Your task to perform on an android device: turn off smart reply in the gmail app Image 0: 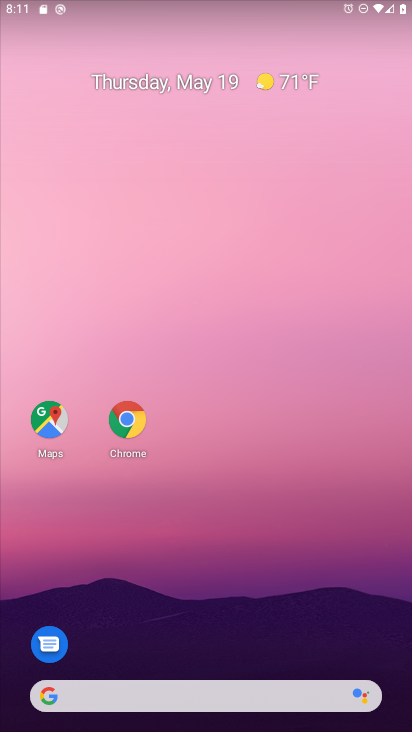
Step 0: drag from (192, 673) to (265, 131)
Your task to perform on an android device: turn off smart reply in the gmail app Image 1: 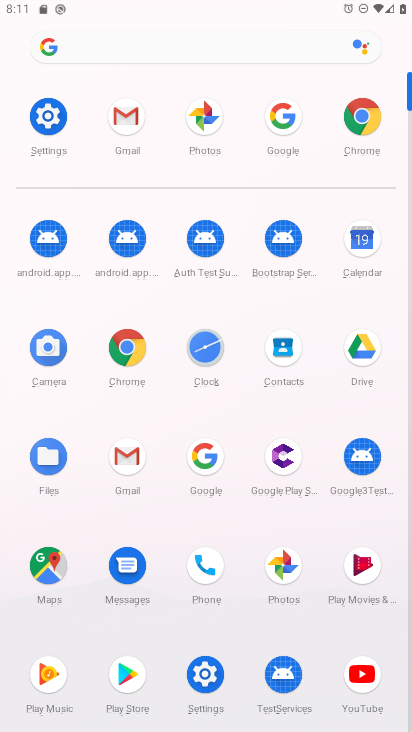
Step 1: click (130, 125)
Your task to perform on an android device: turn off smart reply in the gmail app Image 2: 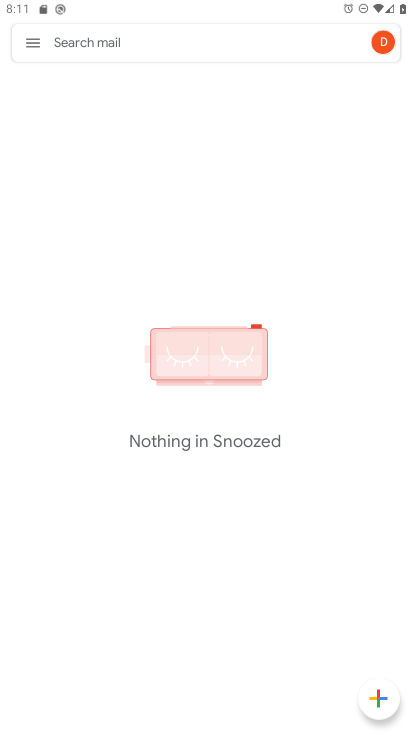
Step 2: click (29, 42)
Your task to perform on an android device: turn off smart reply in the gmail app Image 3: 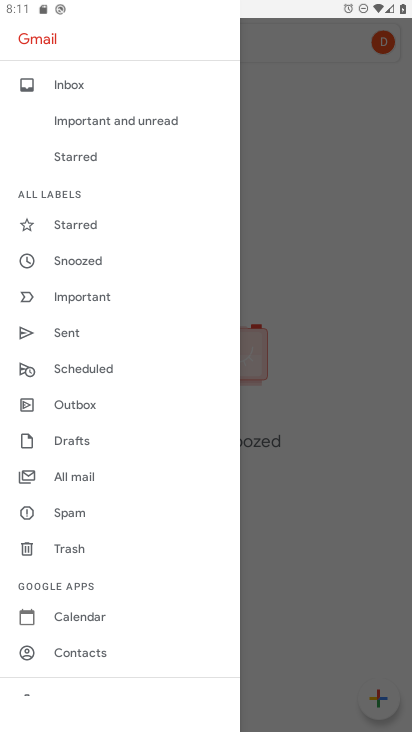
Step 3: drag from (87, 659) to (91, 321)
Your task to perform on an android device: turn off smart reply in the gmail app Image 4: 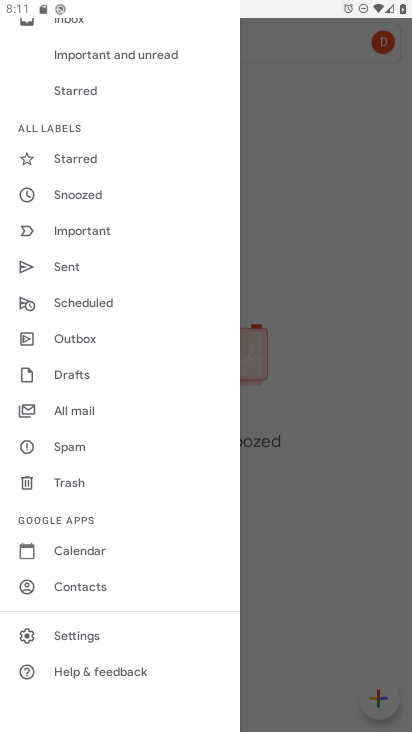
Step 4: click (75, 628)
Your task to perform on an android device: turn off smart reply in the gmail app Image 5: 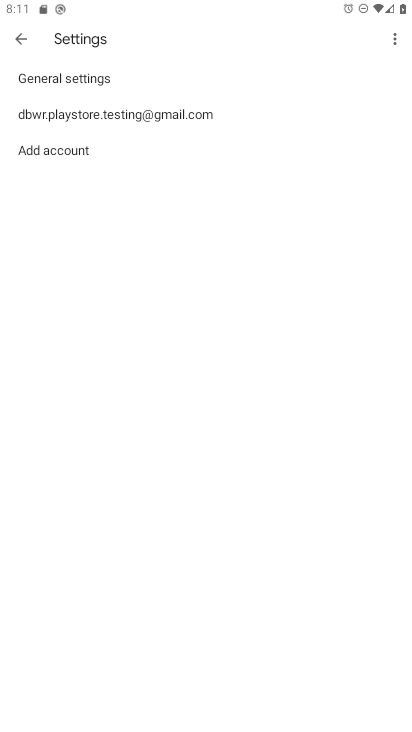
Step 5: click (129, 118)
Your task to perform on an android device: turn off smart reply in the gmail app Image 6: 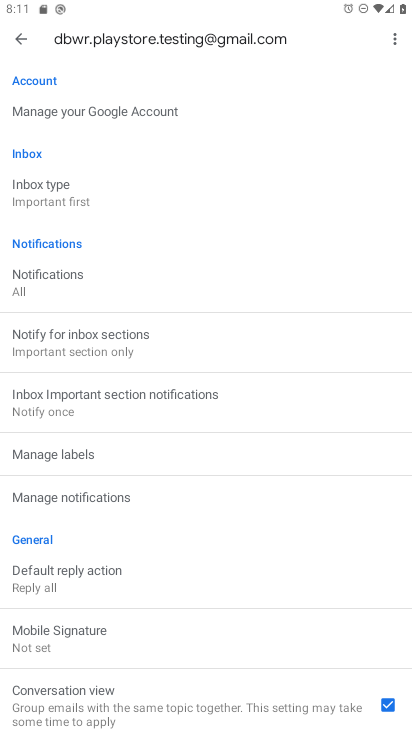
Step 6: drag from (132, 720) to (177, 426)
Your task to perform on an android device: turn off smart reply in the gmail app Image 7: 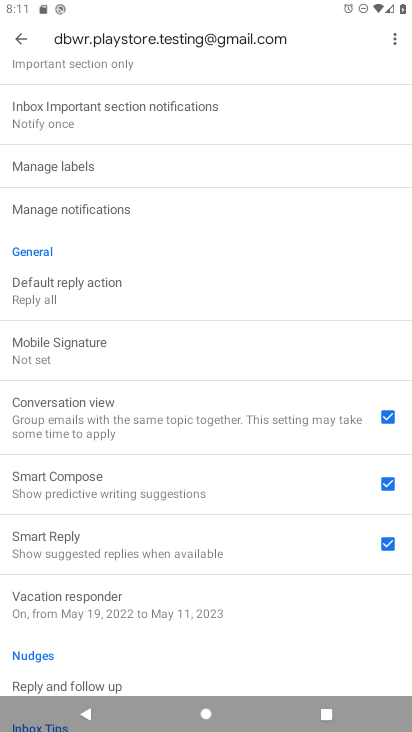
Step 7: drag from (150, 652) to (177, 465)
Your task to perform on an android device: turn off smart reply in the gmail app Image 8: 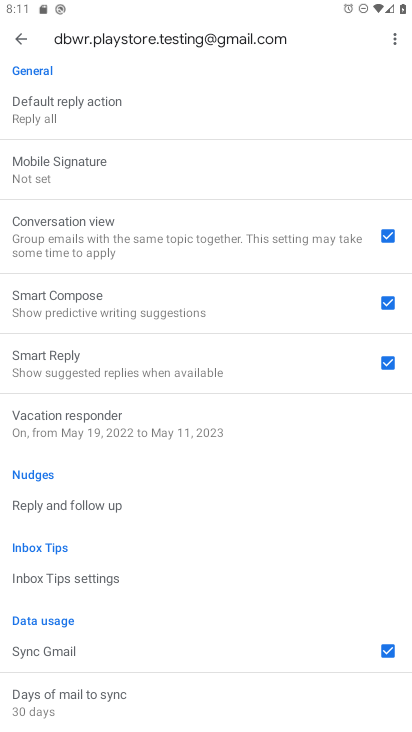
Step 8: click (389, 364)
Your task to perform on an android device: turn off smart reply in the gmail app Image 9: 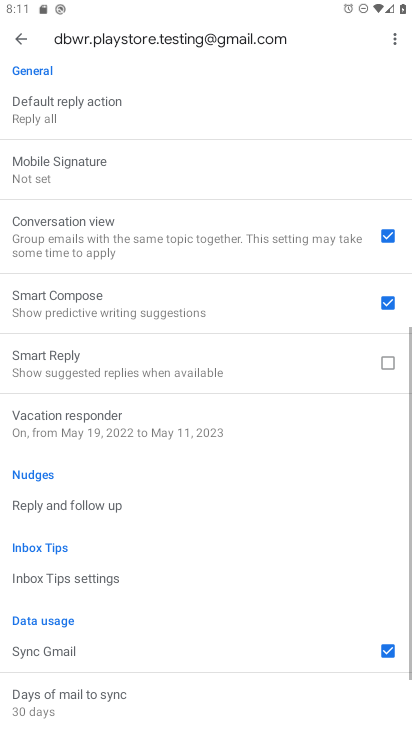
Step 9: task complete